Your task to perform on an android device: turn on javascript in the chrome app Image 0: 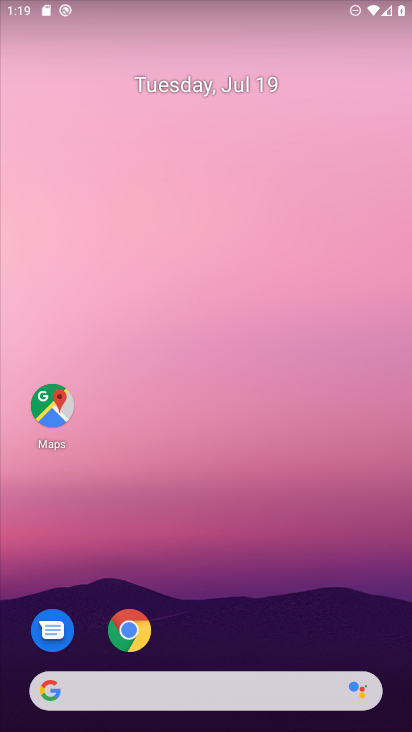
Step 0: press home button
Your task to perform on an android device: turn on javascript in the chrome app Image 1: 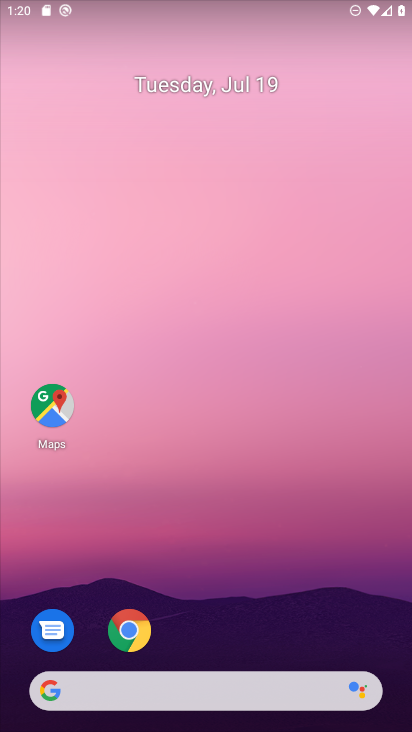
Step 1: click (132, 636)
Your task to perform on an android device: turn on javascript in the chrome app Image 2: 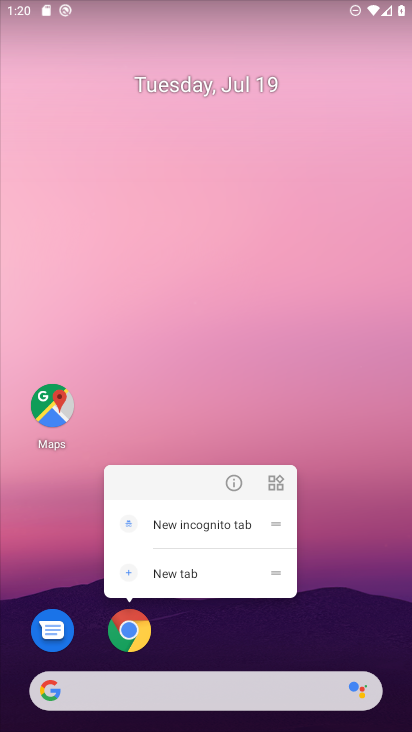
Step 2: click (138, 646)
Your task to perform on an android device: turn on javascript in the chrome app Image 3: 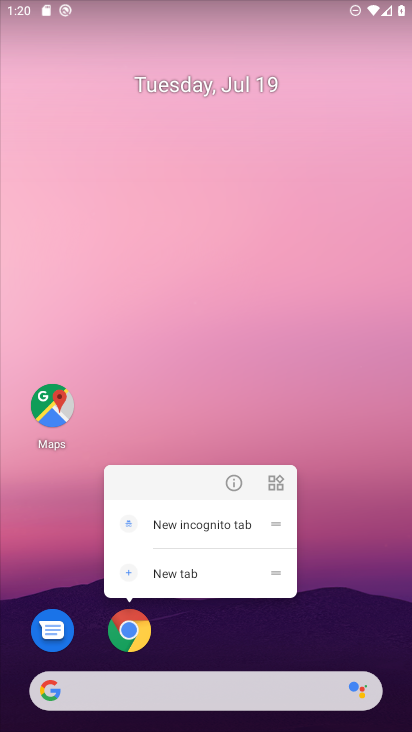
Step 3: click (140, 626)
Your task to perform on an android device: turn on javascript in the chrome app Image 4: 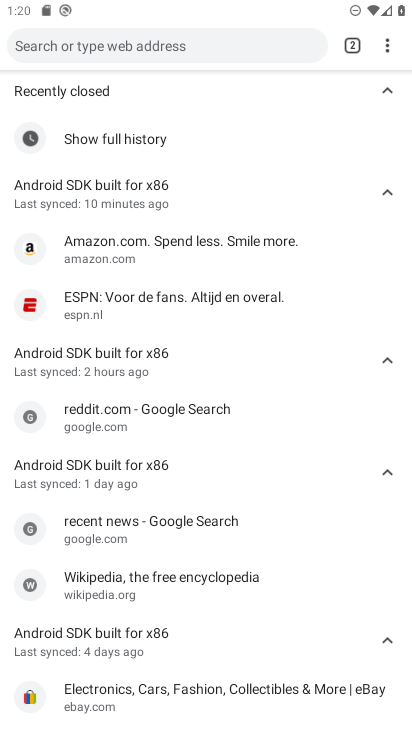
Step 4: drag from (387, 44) to (266, 386)
Your task to perform on an android device: turn on javascript in the chrome app Image 5: 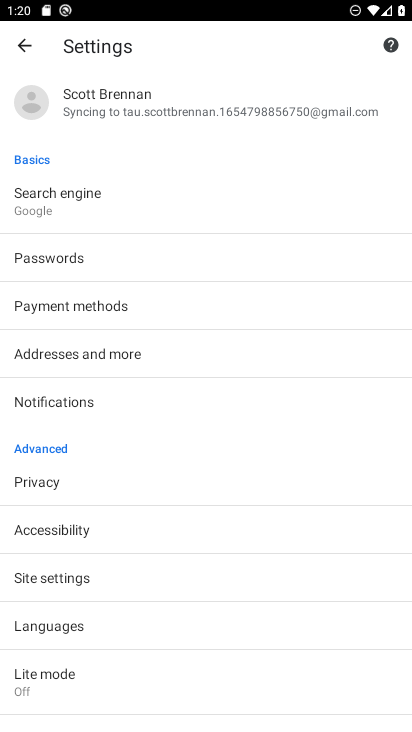
Step 5: click (77, 582)
Your task to perform on an android device: turn on javascript in the chrome app Image 6: 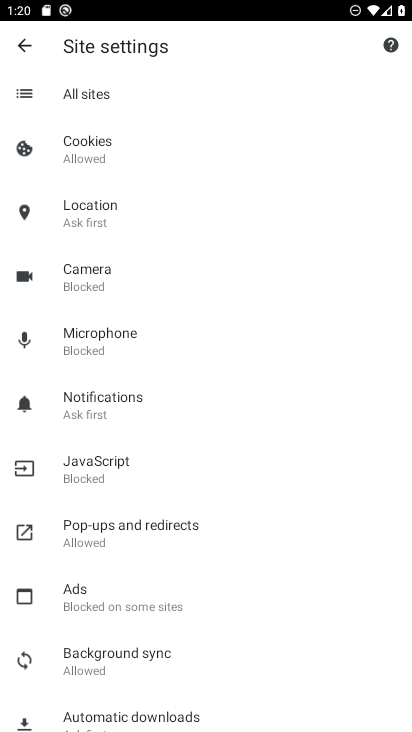
Step 6: click (112, 466)
Your task to perform on an android device: turn on javascript in the chrome app Image 7: 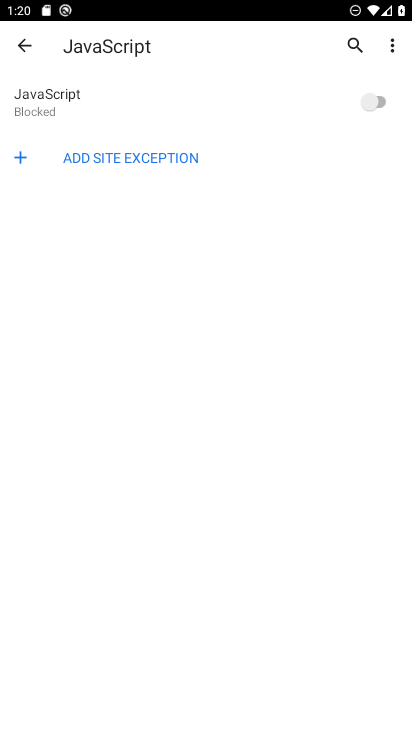
Step 7: click (381, 100)
Your task to perform on an android device: turn on javascript in the chrome app Image 8: 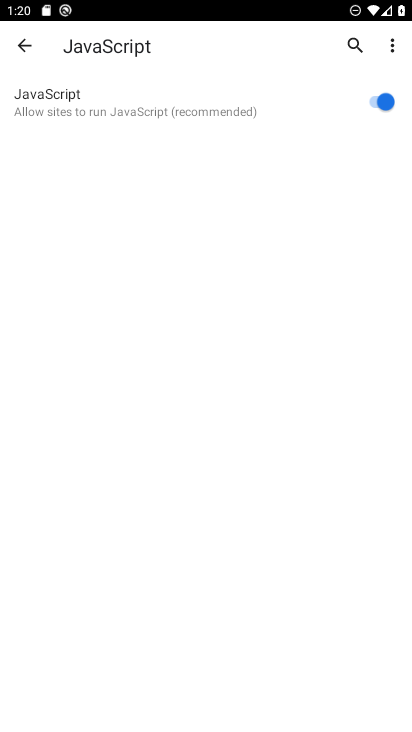
Step 8: task complete